Your task to perform on an android device: set an alarm Image 0: 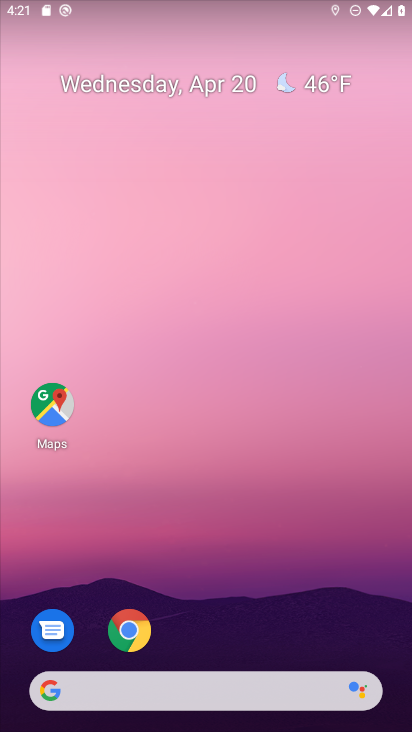
Step 0: drag from (344, 657) to (270, 10)
Your task to perform on an android device: set an alarm Image 1: 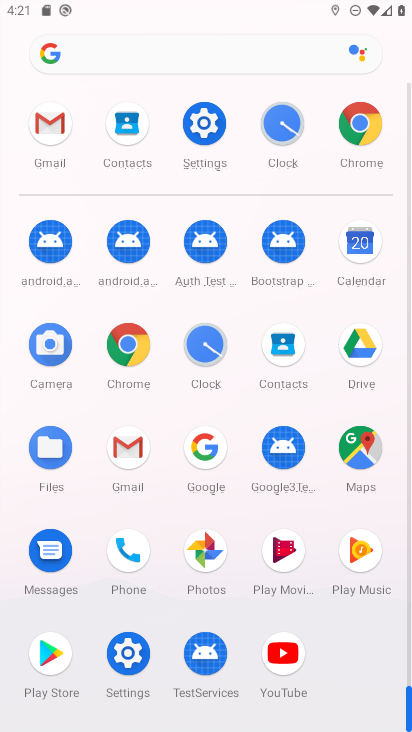
Step 1: click (201, 342)
Your task to perform on an android device: set an alarm Image 2: 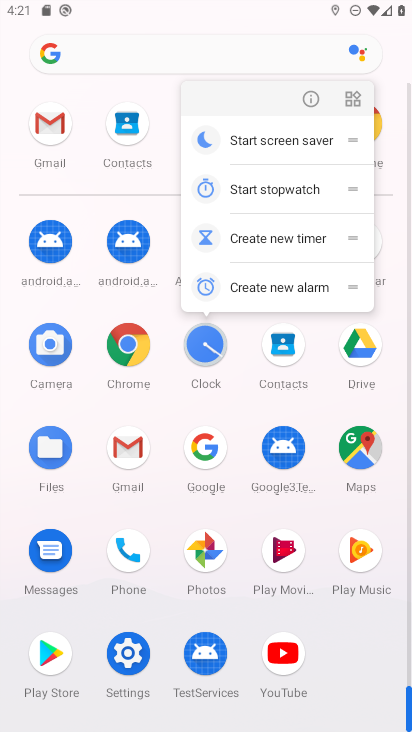
Step 2: click (201, 342)
Your task to perform on an android device: set an alarm Image 3: 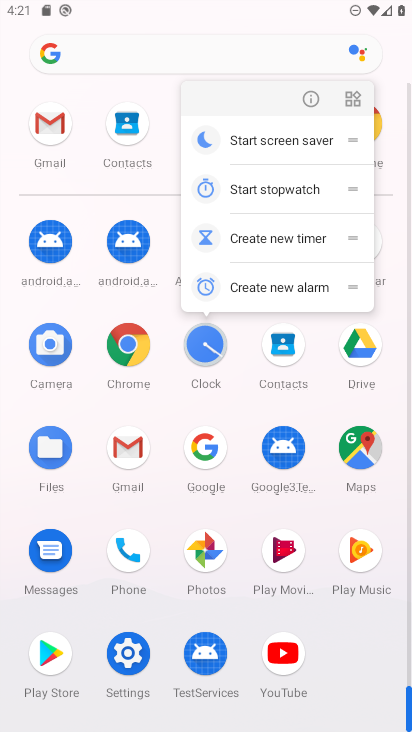
Step 3: click (201, 342)
Your task to perform on an android device: set an alarm Image 4: 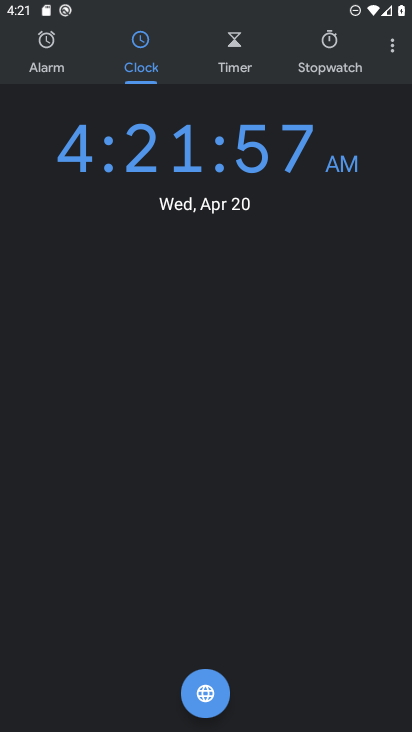
Step 4: click (37, 53)
Your task to perform on an android device: set an alarm Image 5: 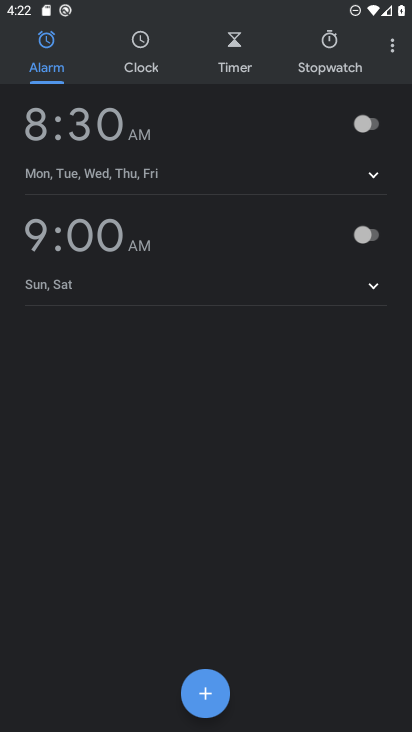
Step 5: click (378, 125)
Your task to perform on an android device: set an alarm Image 6: 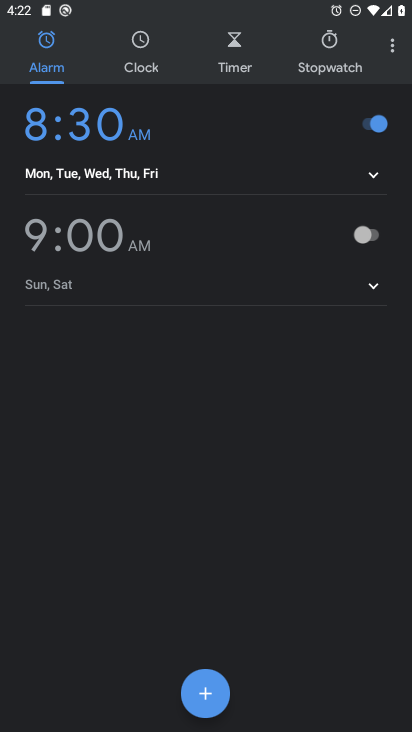
Step 6: task complete